Your task to perform on an android device: change your default location settings in chrome Image 0: 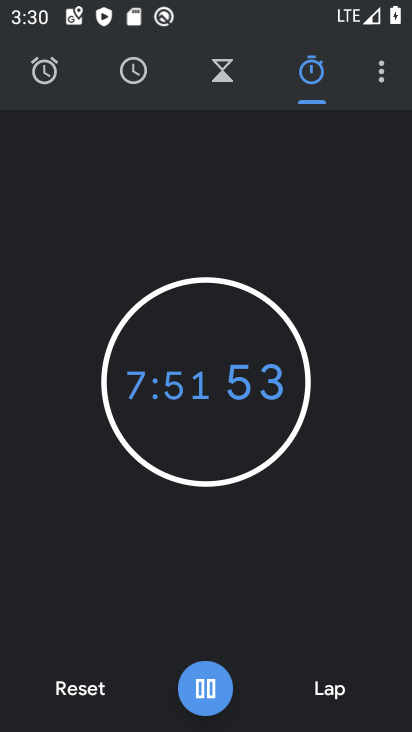
Step 0: press home button
Your task to perform on an android device: change your default location settings in chrome Image 1: 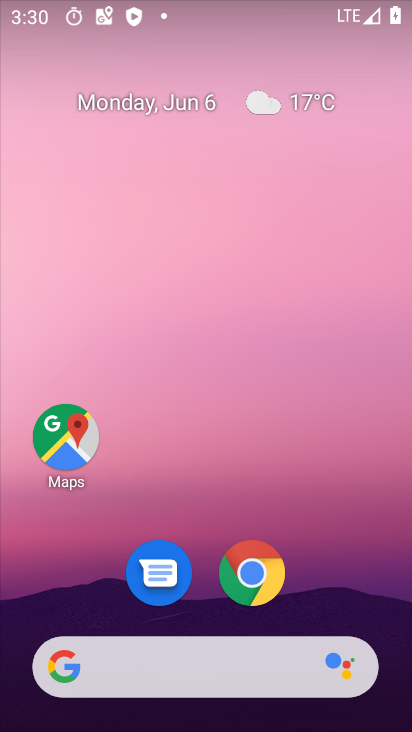
Step 1: drag from (356, 579) to (361, 239)
Your task to perform on an android device: change your default location settings in chrome Image 2: 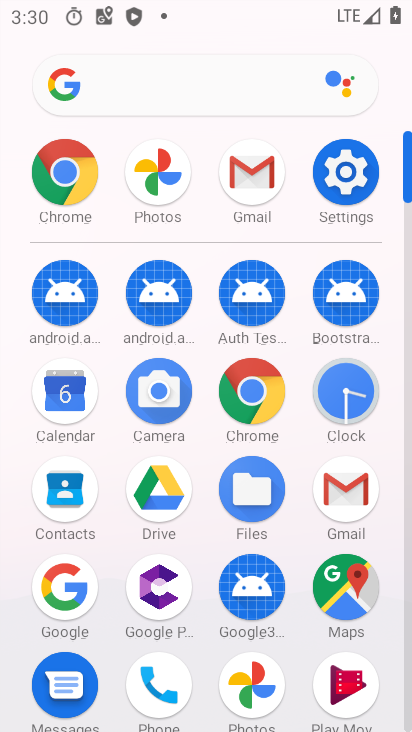
Step 2: click (261, 403)
Your task to perform on an android device: change your default location settings in chrome Image 3: 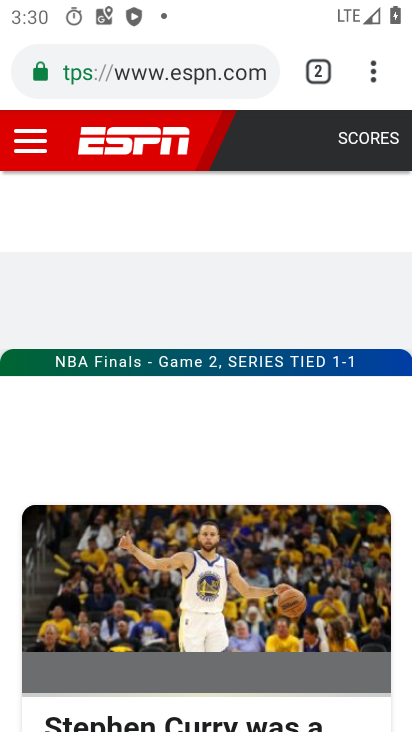
Step 3: click (371, 83)
Your task to perform on an android device: change your default location settings in chrome Image 4: 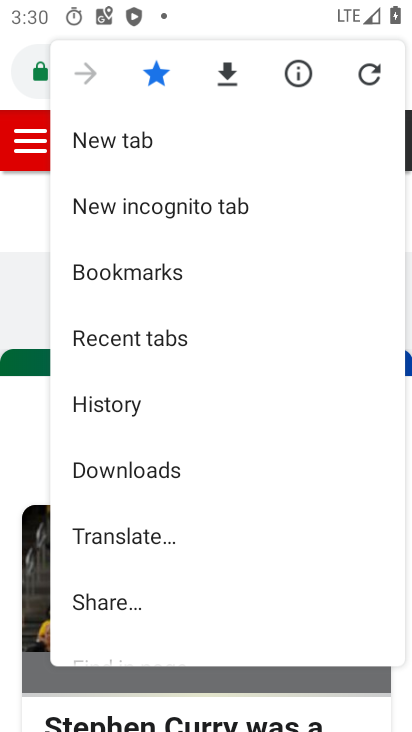
Step 4: drag from (324, 493) to (324, 383)
Your task to perform on an android device: change your default location settings in chrome Image 5: 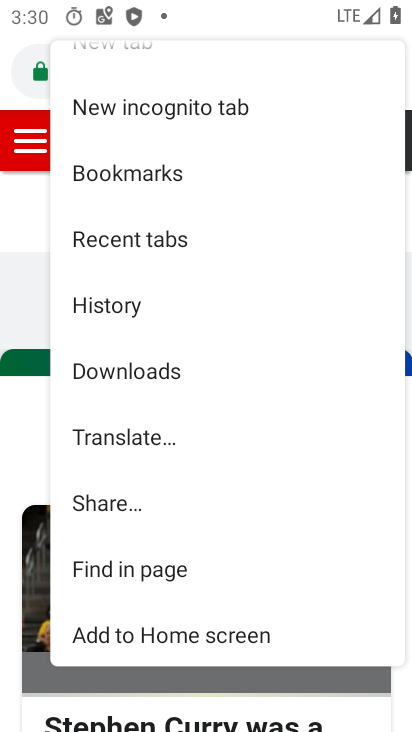
Step 5: drag from (332, 535) to (331, 358)
Your task to perform on an android device: change your default location settings in chrome Image 6: 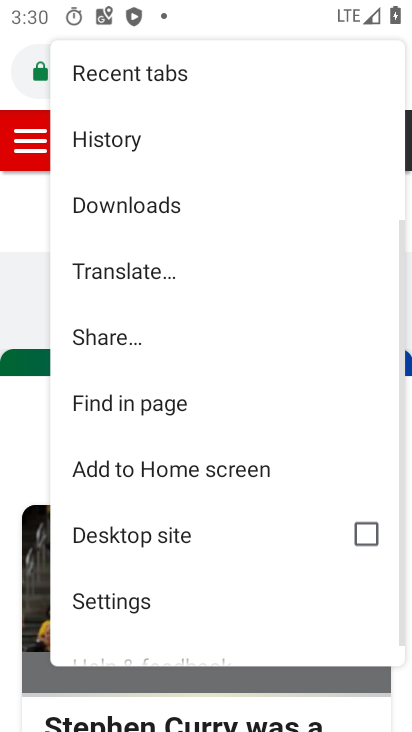
Step 6: drag from (287, 570) to (300, 445)
Your task to perform on an android device: change your default location settings in chrome Image 7: 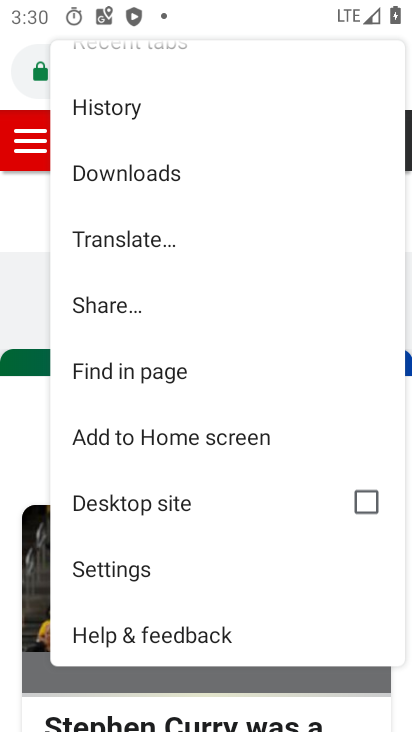
Step 7: click (160, 567)
Your task to perform on an android device: change your default location settings in chrome Image 8: 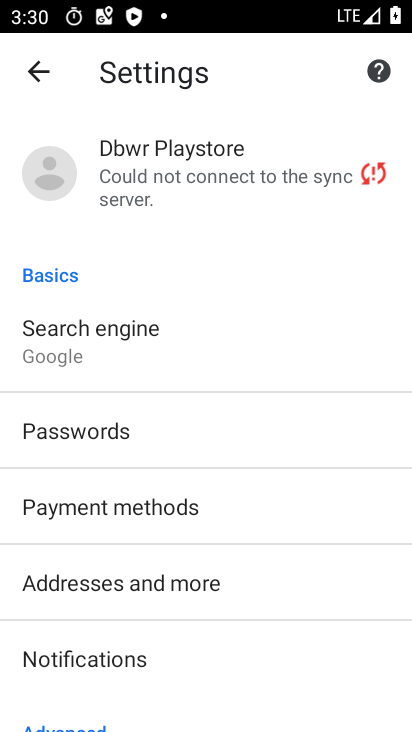
Step 8: drag from (298, 609) to (328, 489)
Your task to perform on an android device: change your default location settings in chrome Image 9: 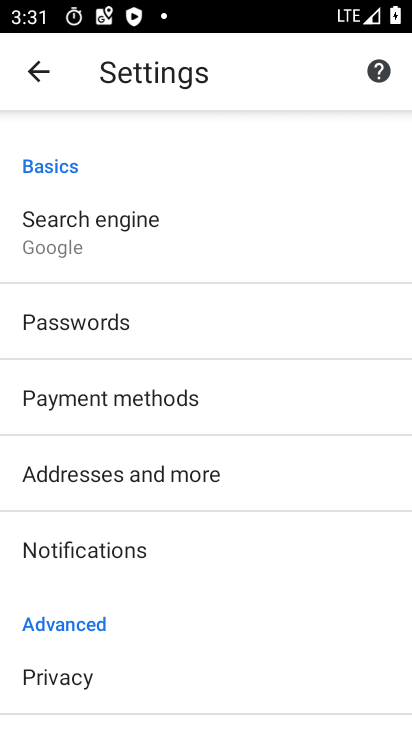
Step 9: drag from (327, 577) to (330, 482)
Your task to perform on an android device: change your default location settings in chrome Image 10: 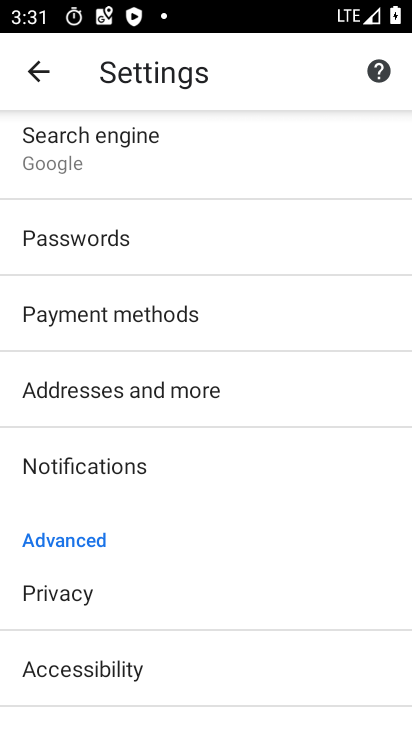
Step 10: drag from (337, 588) to (341, 483)
Your task to perform on an android device: change your default location settings in chrome Image 11: 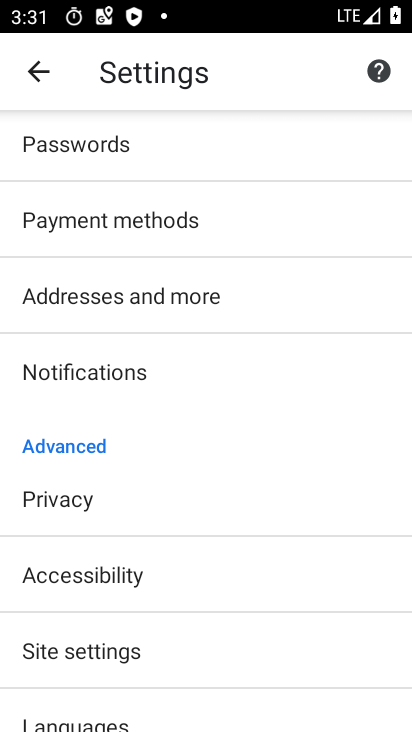
Step 11: drag from (310, 624) to (312, 517)
Your task to perform on an android device: change your default location settings in chrome Image 12: 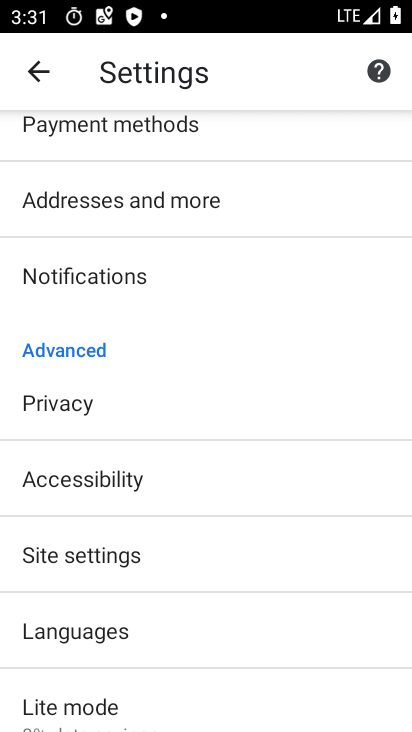
Step 12: click (218, 557)
Your task to perform on an android device: change your default location settings in chrome Image 13: 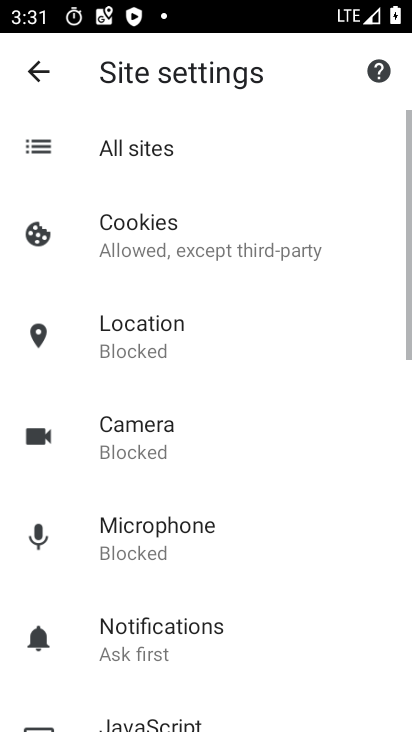
Step 13: drag from (263, 561) to (278, 478)
Your task to perform on an android device: change your default location settings in chrome Image 14: 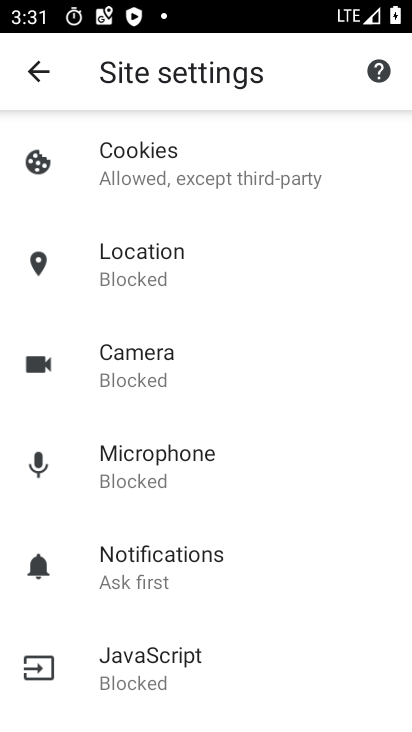
Step 14: click (182, 286)
Your task to perform on an android device: change your default location settings in chrome Image 15: 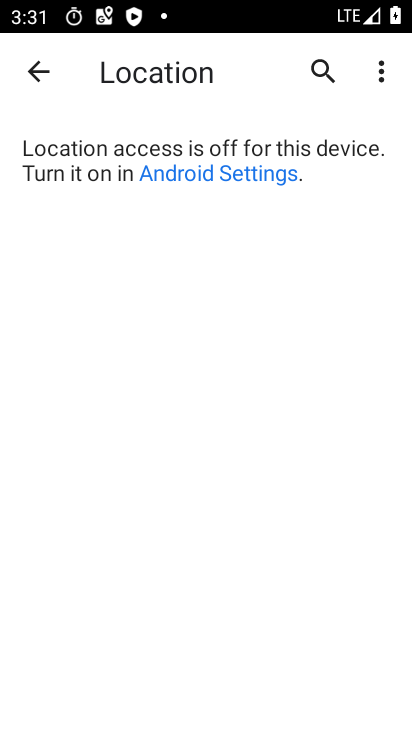
Step 15: click (225, 170)
Your task to perform on an android device: change your default location settings in chrome Image 16: 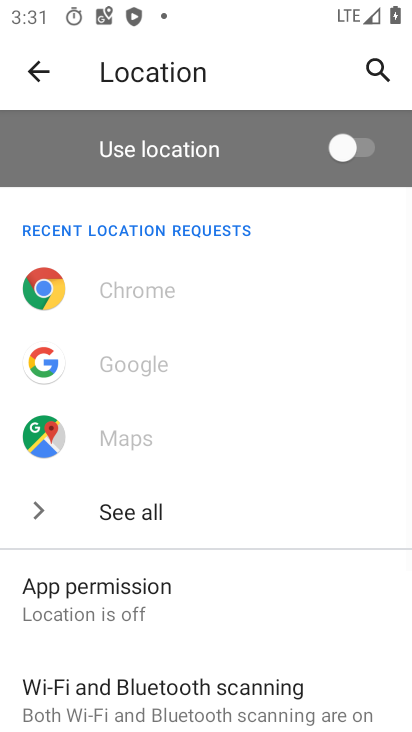
Step 16: click (339, 158)
Your task to perform on an android device: change your default location settings in chrome Image 17: 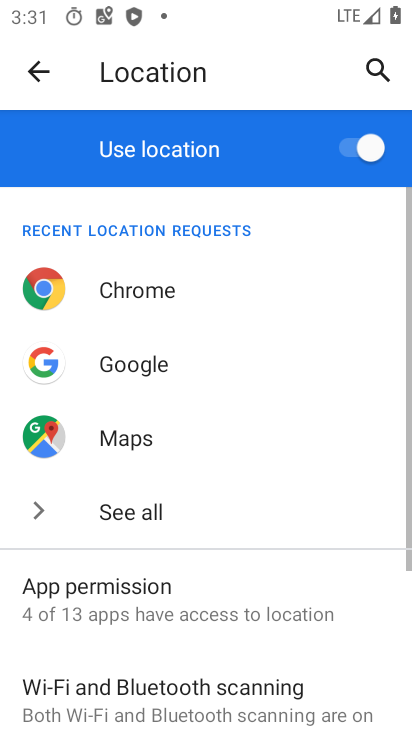
Step 17: task complete